Your task to perform on an android device: clear history in the chrome app Image 0: 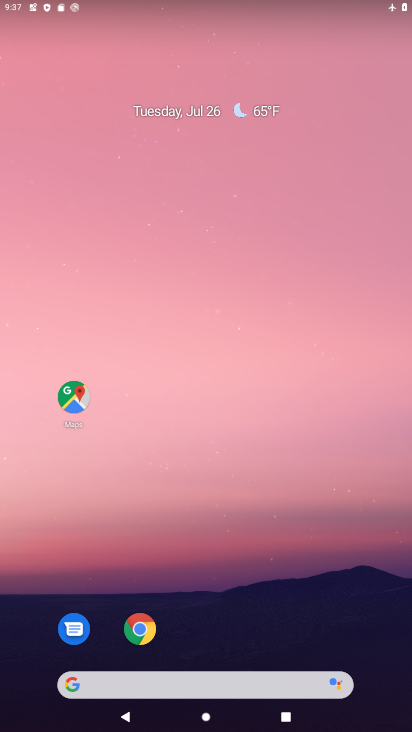
Step 0: drag from (308, 545) to (281, 80)
Your task to perform on an android device: clear history in the chrome app Image 1: 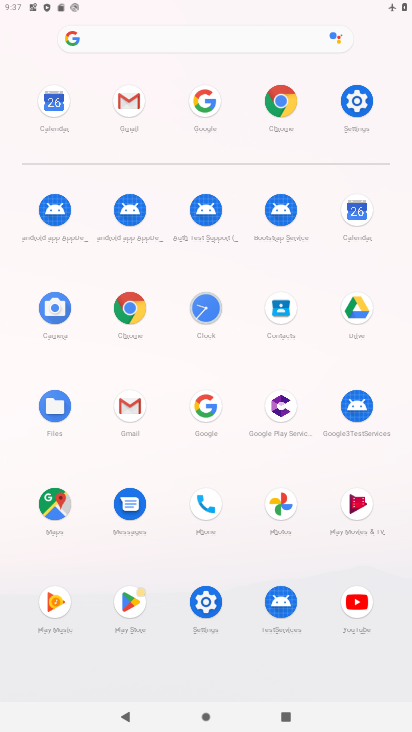
Step 1: click (133, 310)
Your task to perform on an android device: clear history in the chrome app Image 2: 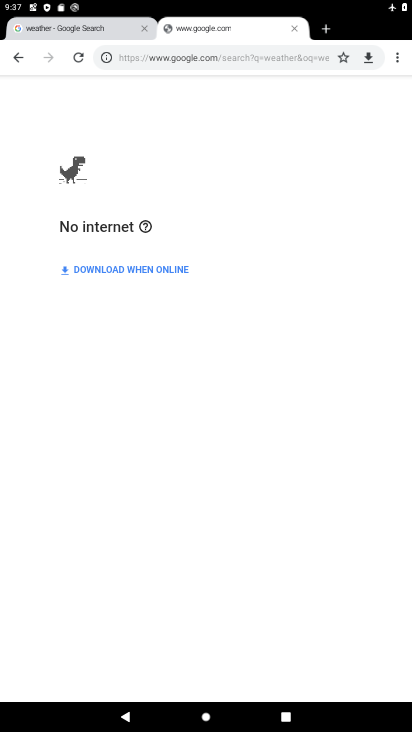
Step 2: task complete